Your task to perform on an android device: Open the stopwatch Image 0: 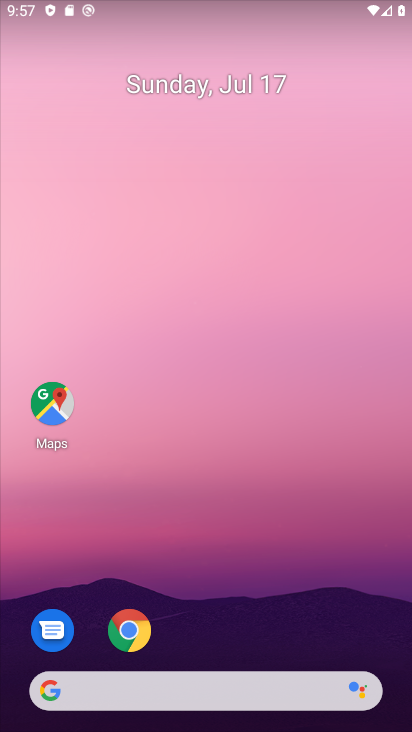
Step 0: drag from (346, 613) to (383, 37)
Your task to perform on an android device: Open the stopwatch Image 1: 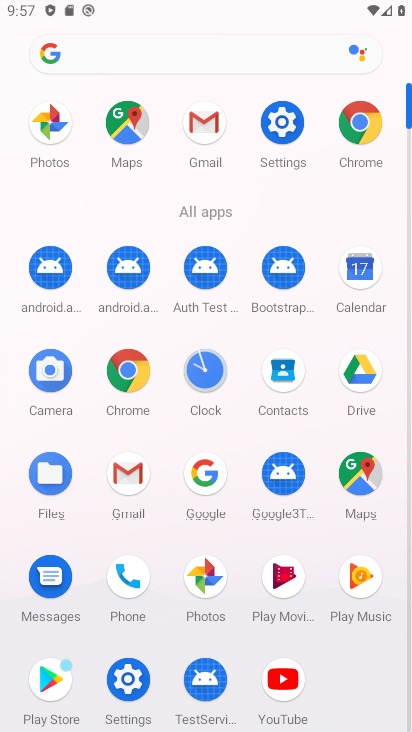
Step 1: click (208, 373)
Your task to perform on an android device: Open the stopwatch Image 2: 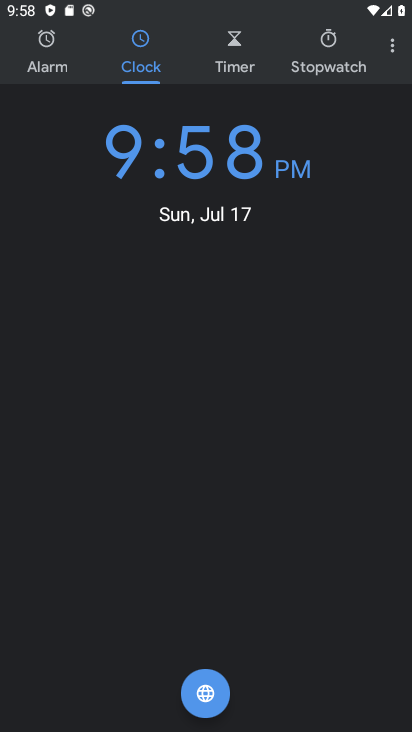
Step 2: click (331, 51)
Your task to perform on an android device: Open the stopwatch Image 3: 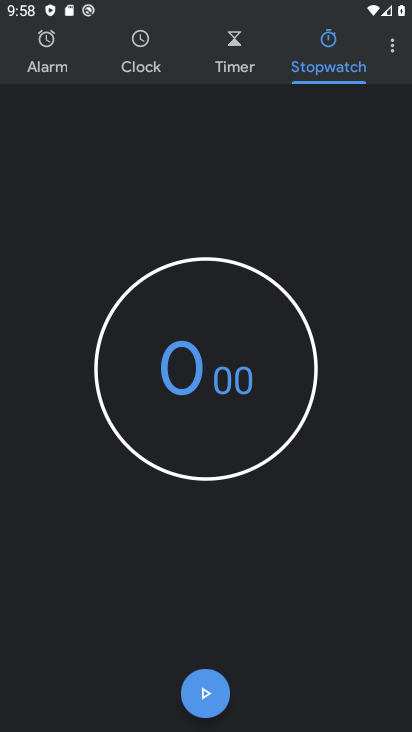
Step 3: task complete